Your task to perform on an android device: manage bookmarks in the chrome app Image 0: 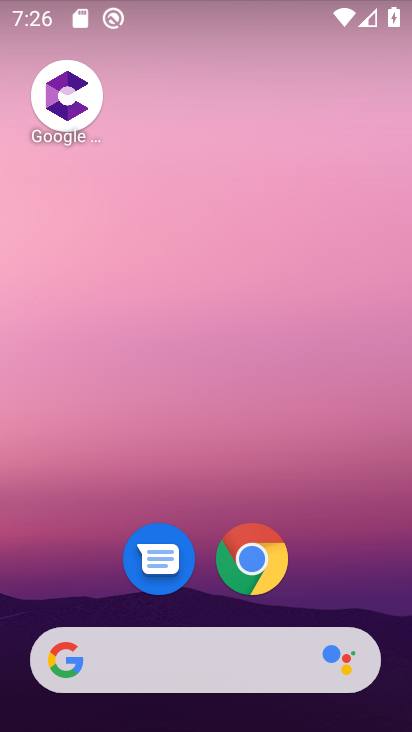
Step 0: click (254, 565)
Your task to perform on an android device: manage bookmarks in the chrome app Image 1: 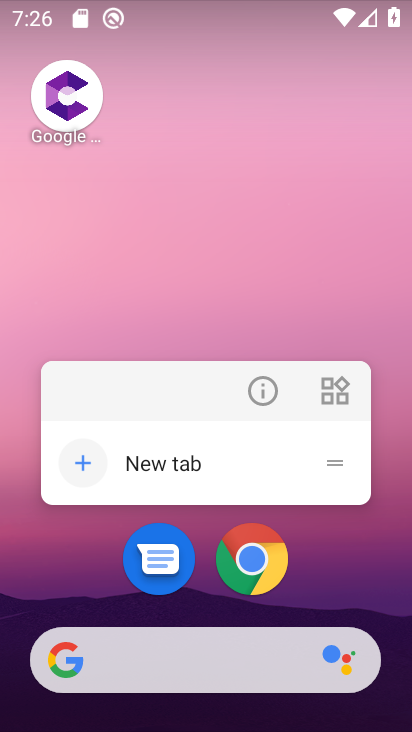
Step 1: click (254, 565)
Your task to perform on an android device: manage bookmarks in the chrome app Image 2: 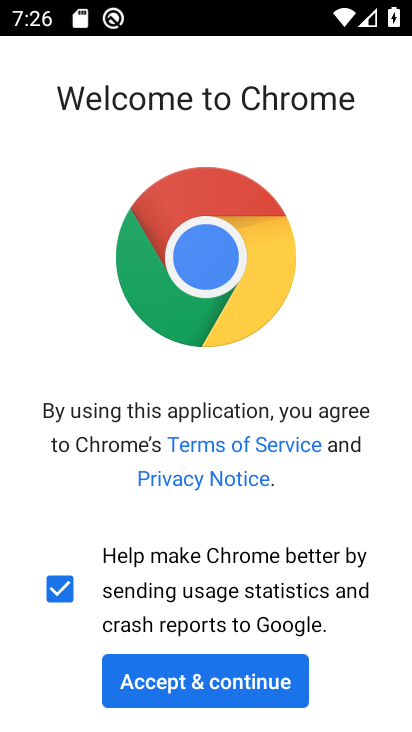
Step 2: click (217, 681)
Your task to perform on an android device: manage bookmarks in the chrome app Image 3: 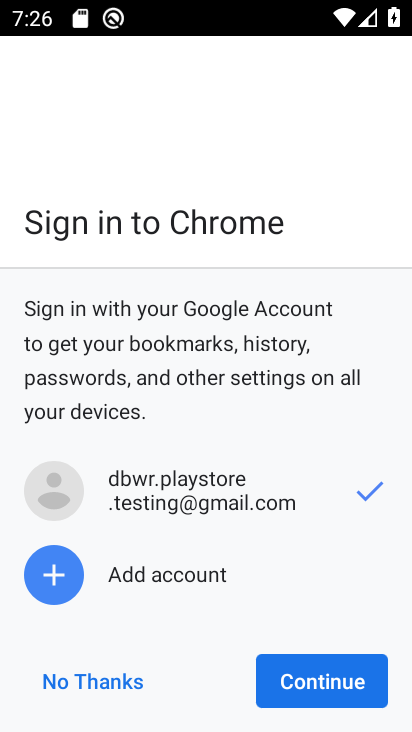
Step 3: click (325, 695)
Your task to perform on an android device: manage bookmarks in the chrome app Image 4: 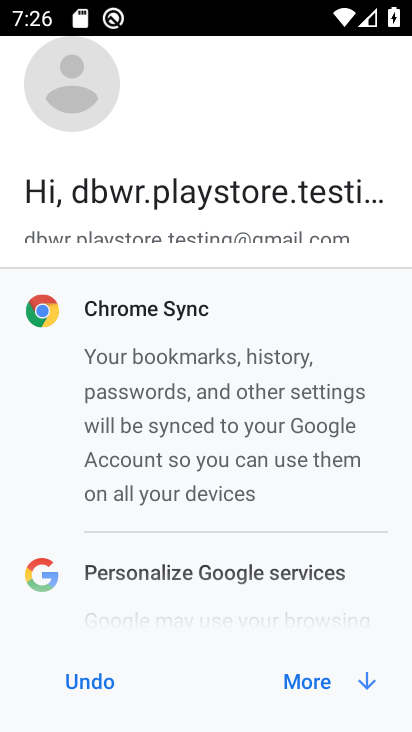
Step 4: click (325, 684)
Your task to perform on an android device: manage bookmarks in the chrome app Image 5: 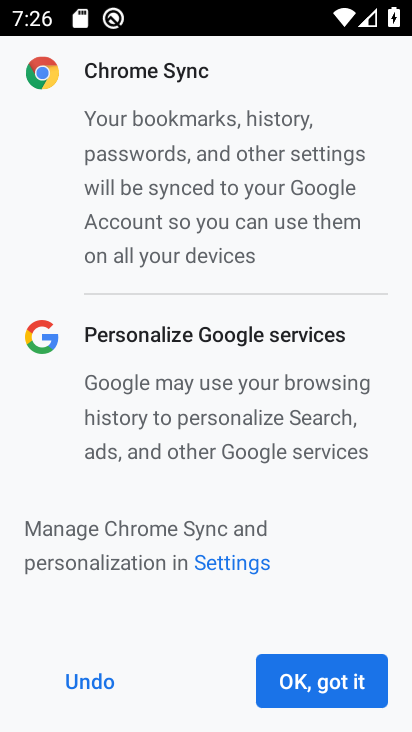
Step 5: click (325, 684)
Your task to perform on an android device: manage bookmarks in the chrome app Image 6: 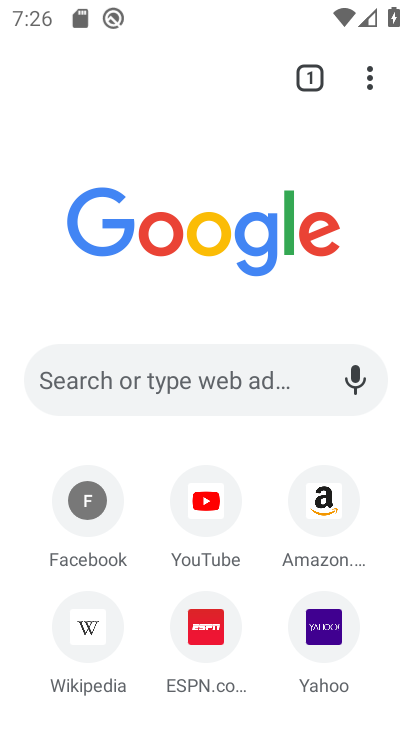
Step 6: drag from (367, 71) to (212, 290)
Your task to perform on an android device: manage bookmarks in the chrome app Image 7: 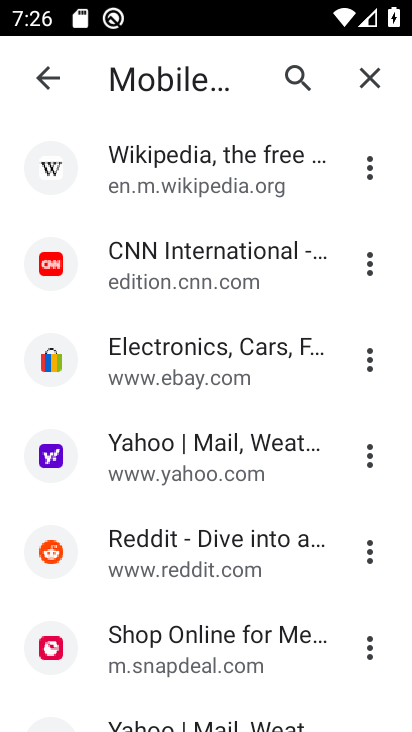
Step 7: click (370, 173)
Your task to perform on an android device: manage bookmarks in the chrome app Image 8: 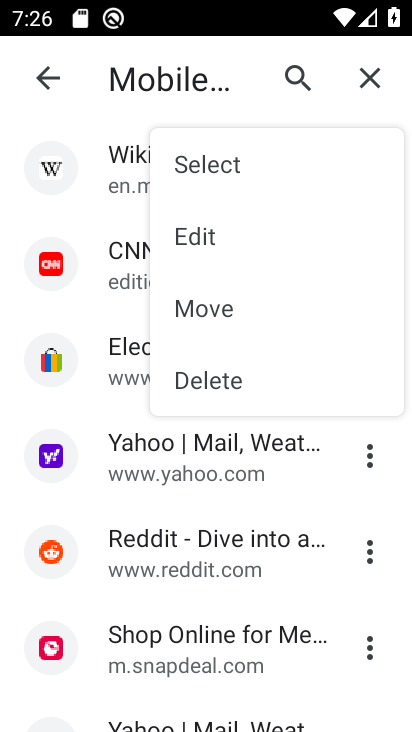
Step 8: click (220, 375)
Your task to perform on an android device: manage bookmarks in the chrome app Image 9: 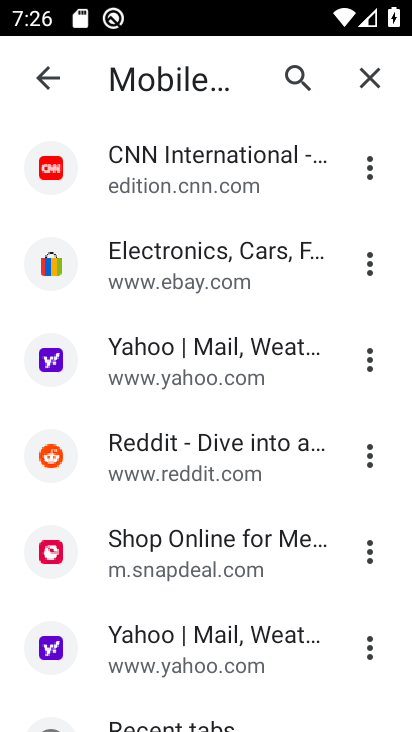
Step 9: task complete